Your task to perform on an android device: Go to Reddit.com Image 0: 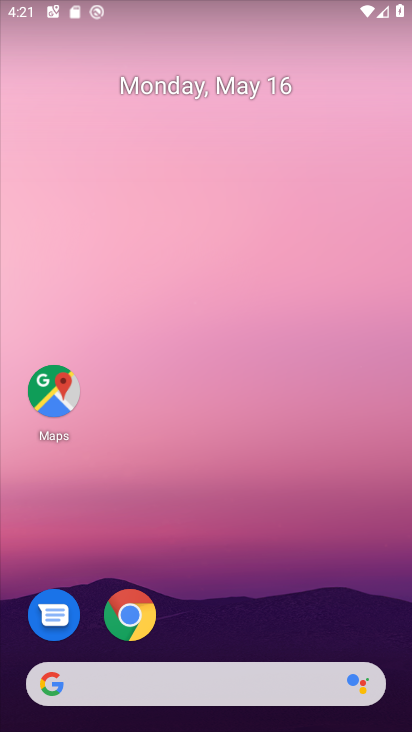
Step 0: click (132, 628)
Your task to perform on an android device: Go to Reddit.com Image 1: 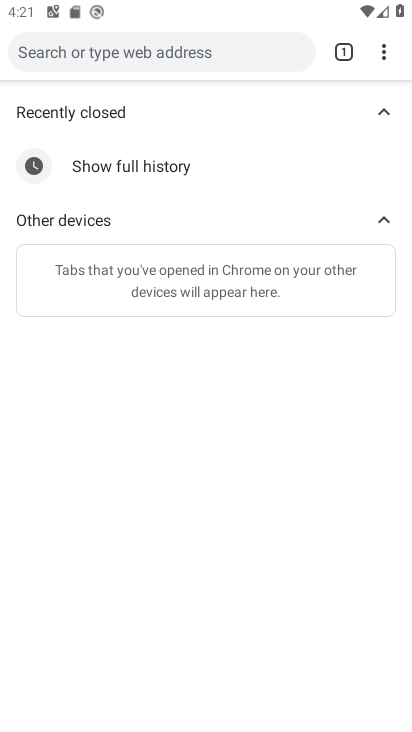
Step 1: click (153, 63)
Your task to perform on an android device: Go to Reddit.com Image 2: 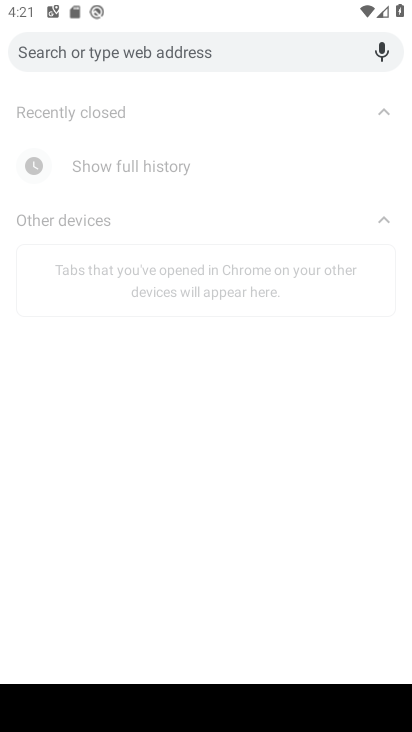
Step 2: type "www.reddit.com"
Your task to perform on an android device: Go to Reddit.com Image 3: 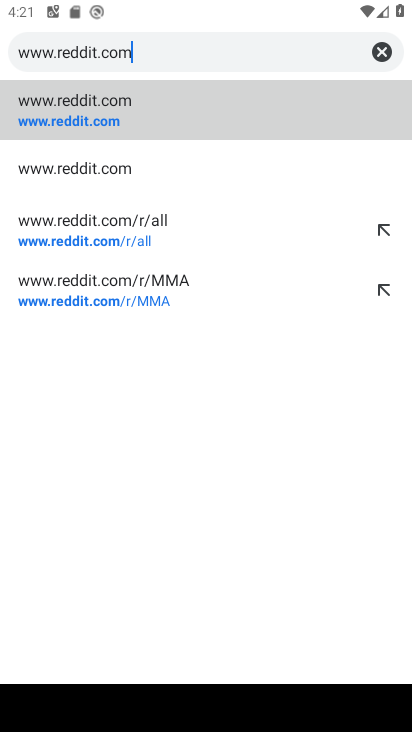
Step 3: click (97, 124)
Your task to perform on an android device: Go to Reddit.com Image 4: 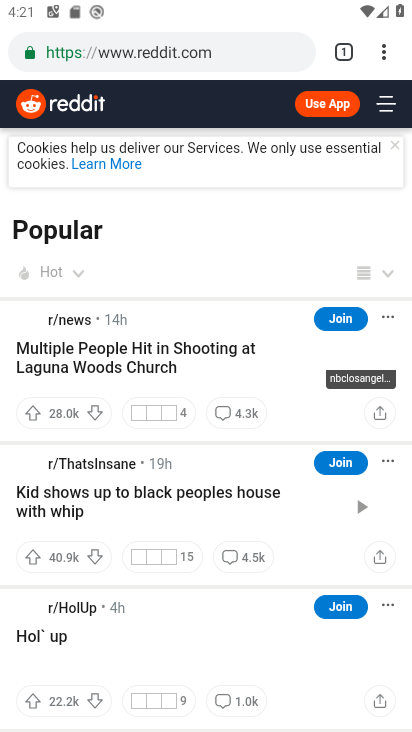
Step 4: task complete